Your task to perform on an android device: turn on translation in the chrome app Image 0: 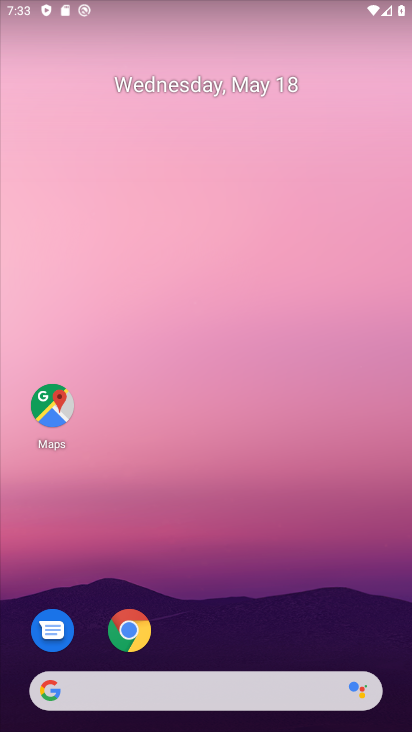
Step 0: click (127, 631)
Your task to perform on an android device: turn on translation in the chrome app Image 1: 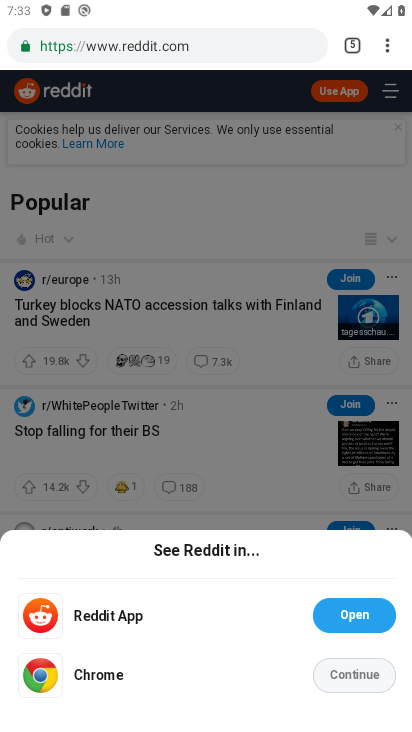
Step 1: click (341, 672)
Your task to perform on an android device: turn on translation in the chrome app Image 2: 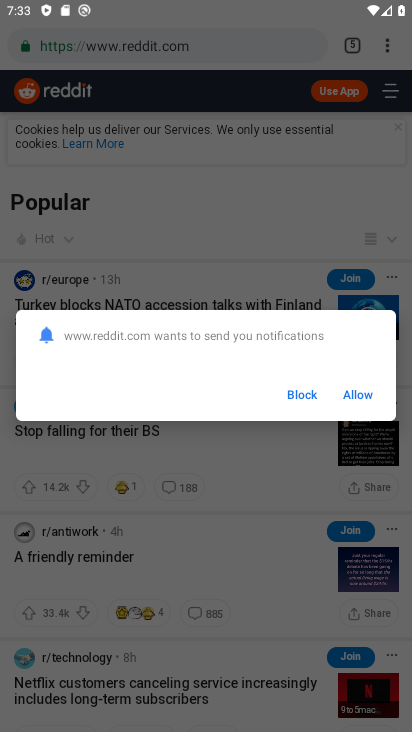
Step 2: click (343, 386)
Your task to perform on an android device: turn on translation in the chrome app Image 3: 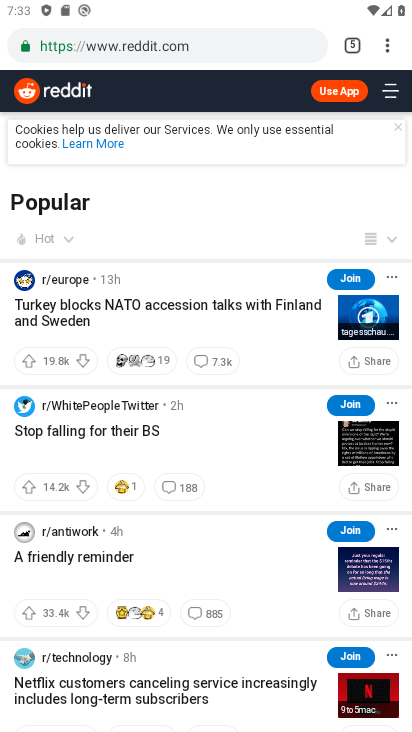
Step 3: click (390, 41)
Your task to perform on an android device: turn on translation in the chrome app Image 4: 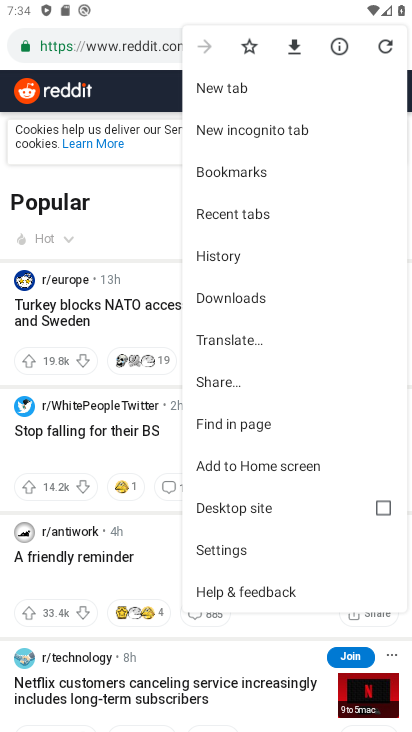
Step 4: click (232, 545)
Your task to perform on an android device: turn on translation in the chrome app Image 5: 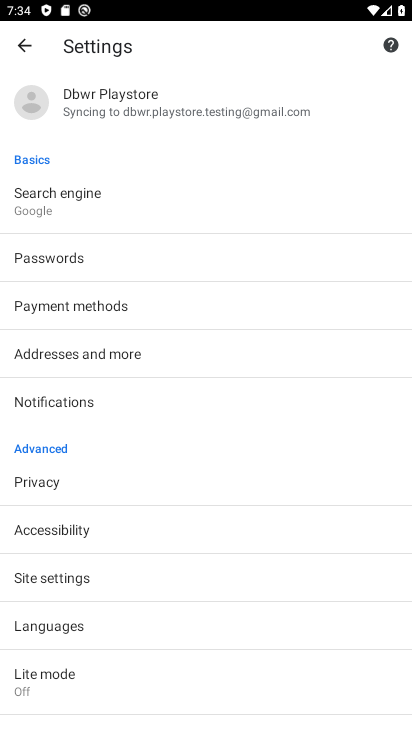
Step 5: click (62, 617)
Your task to perform on an android device: turn on translation in the chrome app Image 6: 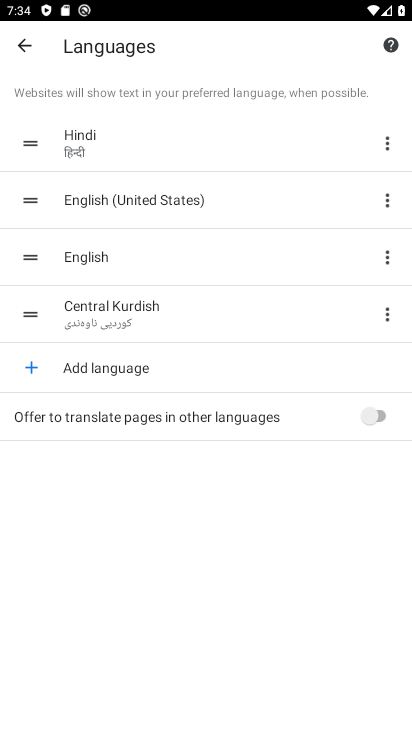
Step 6: click (376, 410)
Your task to perform on an android device: turn on translation in the chrome app Image 7: 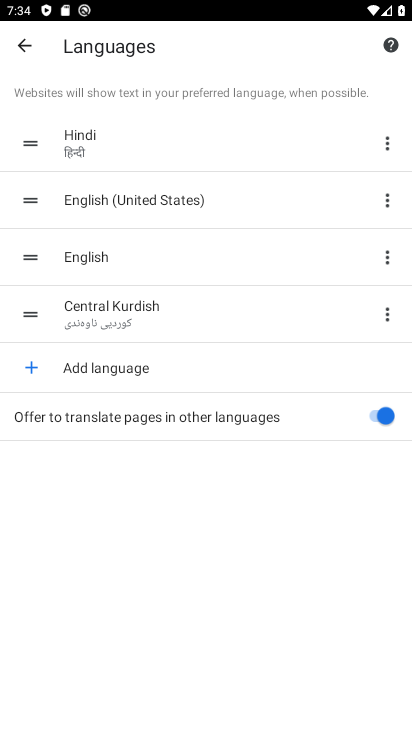
Step 7: task complete